Your task to perform on an android device: Go to Android settings Image 0: 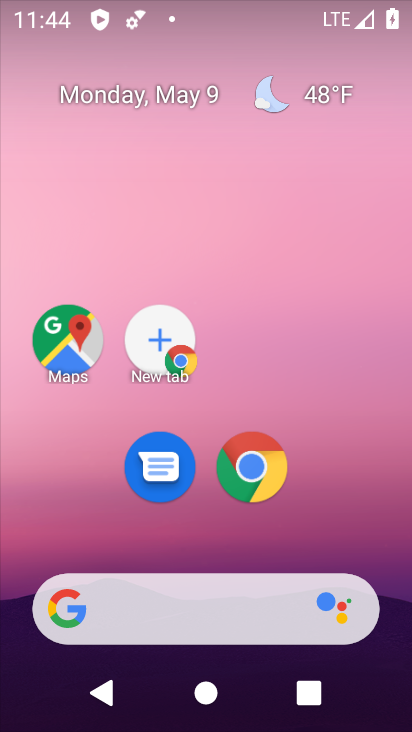
Step 0: drag from (325, 541) to (182, 101)
Your task to perform on an android device: Go to Android settings Image 1: 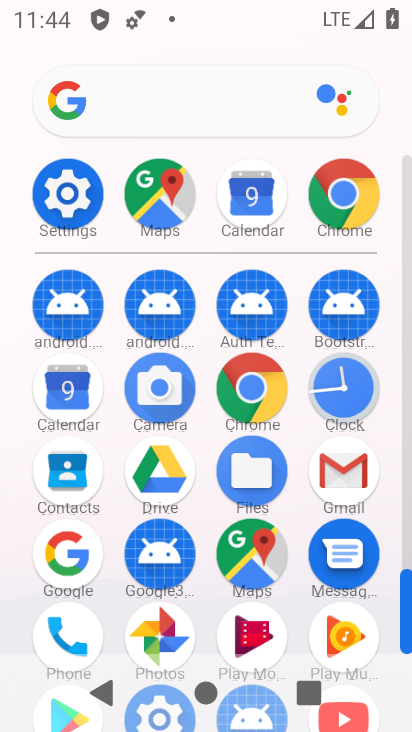
Step 1: click (77, 193)
Your task to perform on an android device: Go to Android settings Image 2: 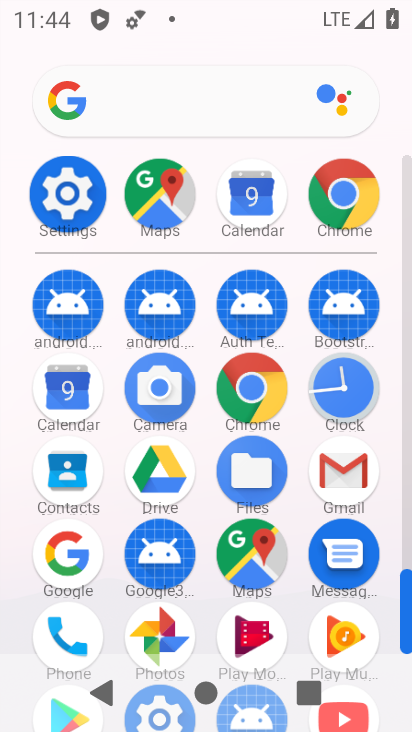
Step 2: click (76, 192)
Your task to perform on an android device: Go to Android settings Image 3: 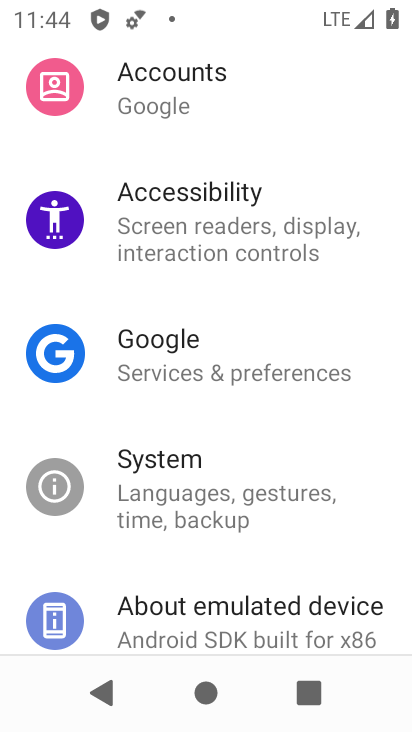
Step 3: click (76, 192)
Your task to perform on an android device: Go to Android settings Image 4: 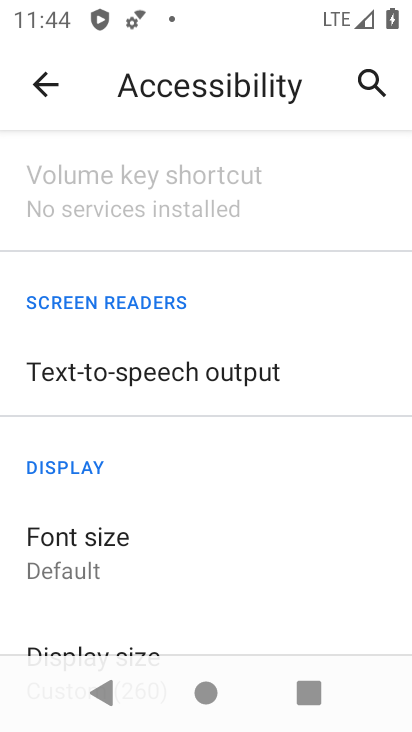
Step 4: click (45, 77)
Your task to perform on an android device: Go to Android settings Image 5: 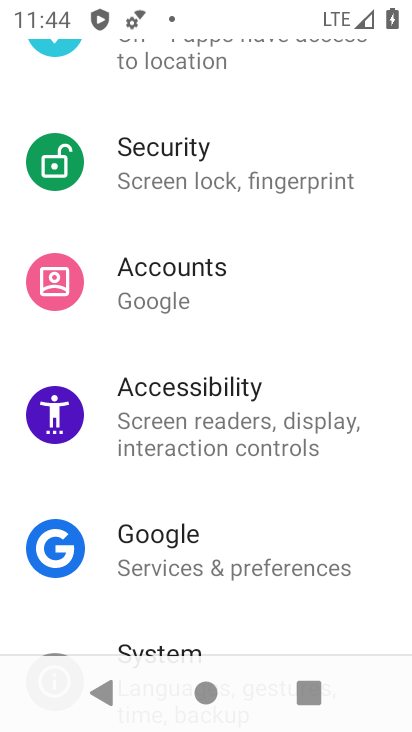
Step 5: drag from (220, 539) to (132, 182)
Your task to perform on an android device: Go to Android settings Image 6: 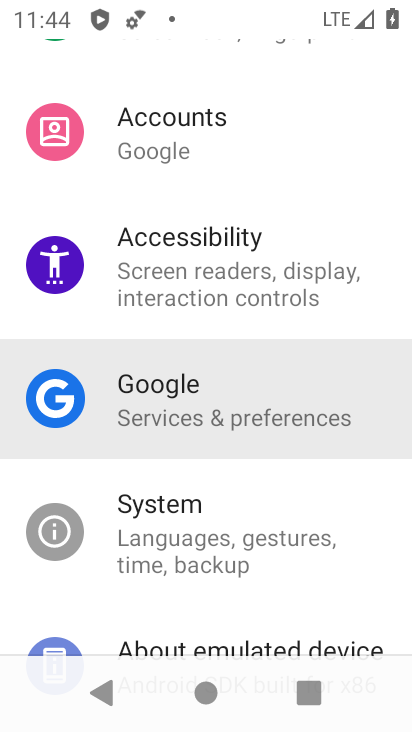
Step 6: drag from (187, 498) to (107, 263)
Your task to perform on an android device: Go to Android settings Image 7: 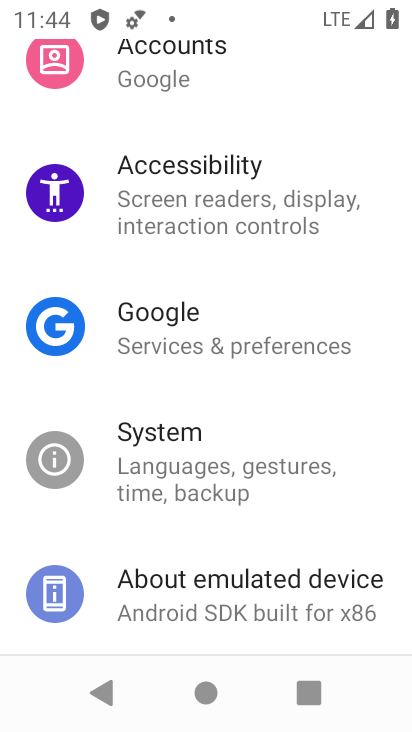
Step 7: drag from (199, 471) to (169, 302)
Your task to perform on an android device: Go to Android settings Image 8: 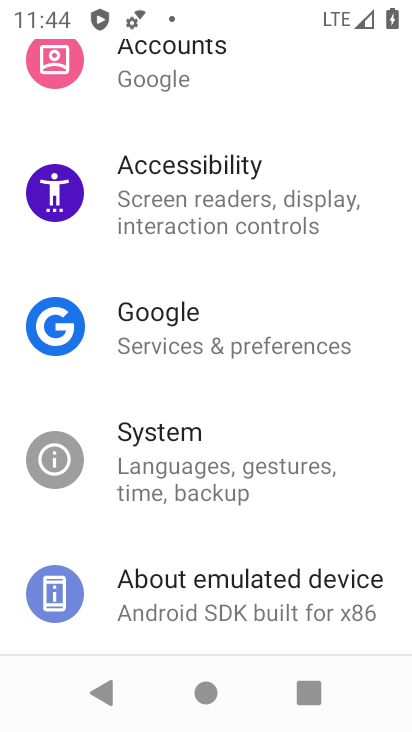
Step 8: click (239, 574)
Your task to perform on an android device: Go to Android settings Image 9: 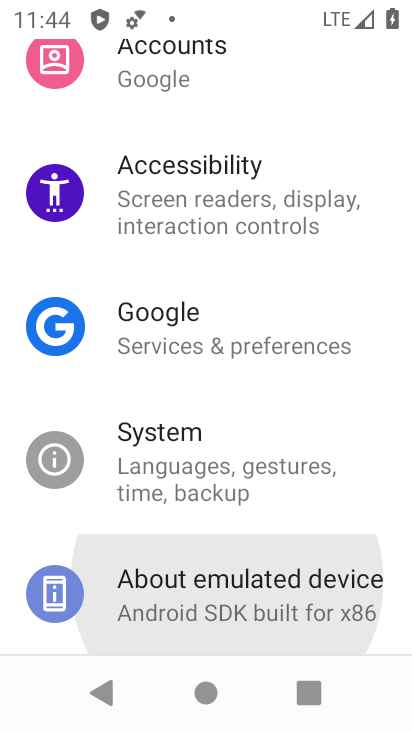
Step 9: click (245, 579)
Your task to perform on an android device: Go to Android settings Image 10: 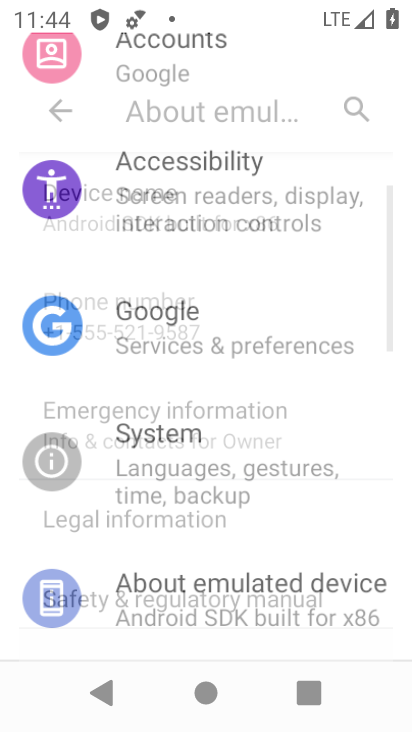
Step 10: click (245, 583)
Your task to perform on an android device: Go to Android settings Image 11: 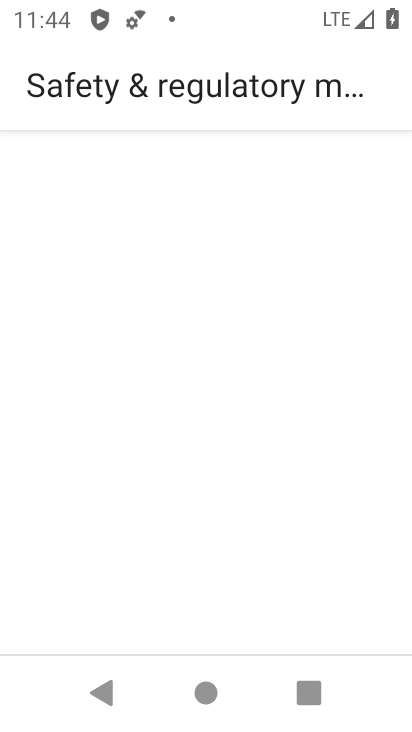
Step 11: task complete